Your task to perform on an android device: Open network settings Image 0: 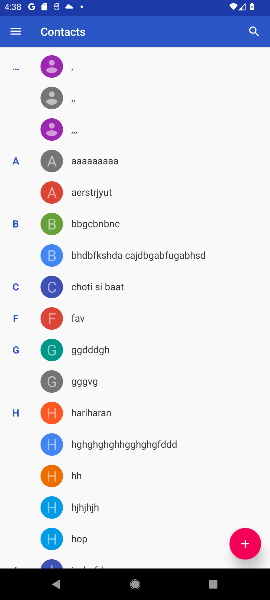
Step 0: press back button
Your task to perform on an android device: Open network settings Image 1: 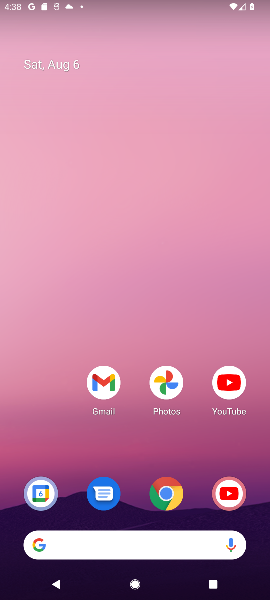
Step 1: drag from (181, 505) to (137, 0)
Your task to perform on an android device: Open network settings Image 2: 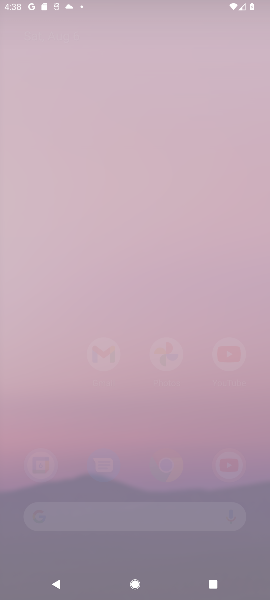
Step 2: drag from (130, 274) to (130, 4)
Your task to perform on an android device: Open network settings Image 3: 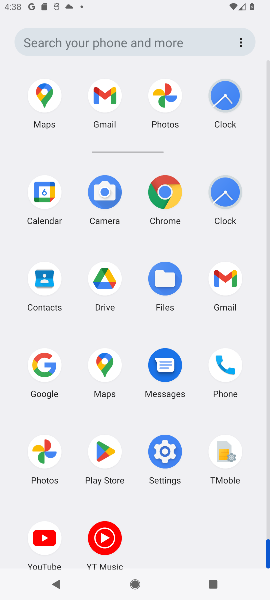
Step 3: click (164, 448)
Your task to perform on an android device: Open network settings Image 4: 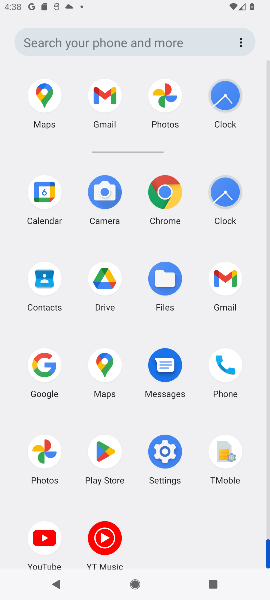
Step 4: click (164, 448)
Your task to perform on an android device: Open network settings Image 5: 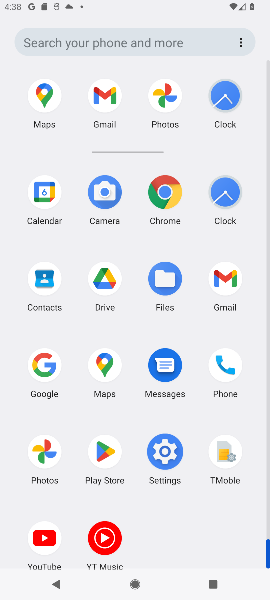
Step 5: click (163, 449)
Your task to perform on an android device: Open network settings Image 6: 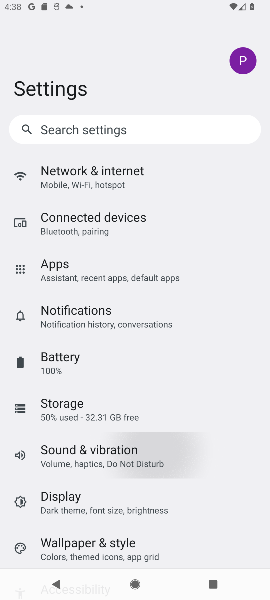
Step 6: click (164, 450)
Your task to perform on an android device: Open network settings Image 7: 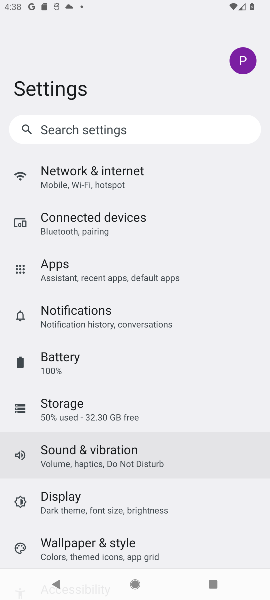
Step 7: click (82, 177)
Your task to perform on an android device: Open network settings Image 8: 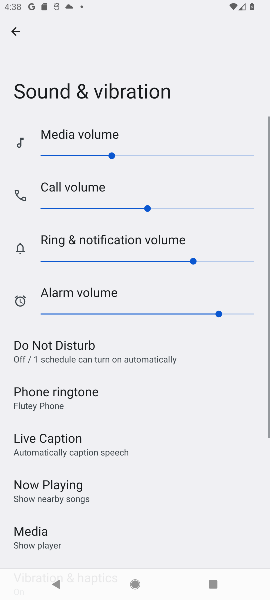
Step 8: click (18, 28)
Your task to perform on an android device: Open network settings Image 9: 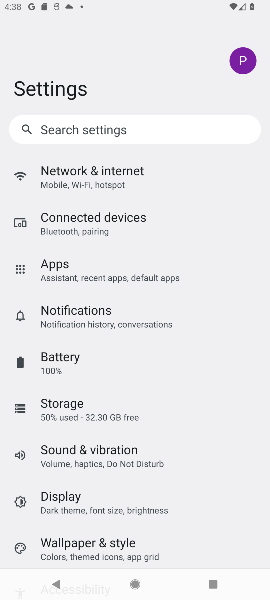
Step 9: click (100, 181)
Your task to perform on an android device: Open network settings Image 10: 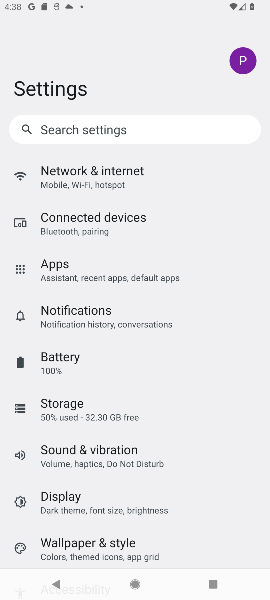
Step 10: click (100, 181)
Your task to perform on an android device: Open network settings Image 11: 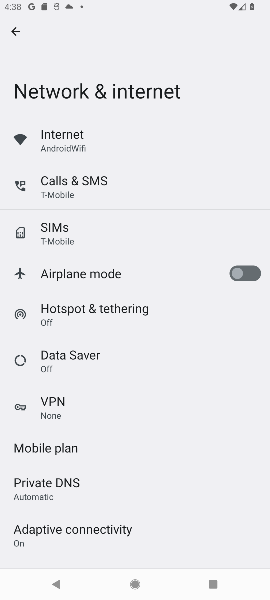
Step 11: task complete